Your task to perform on an android device: manage bookmarks in the chrome app Image 0: 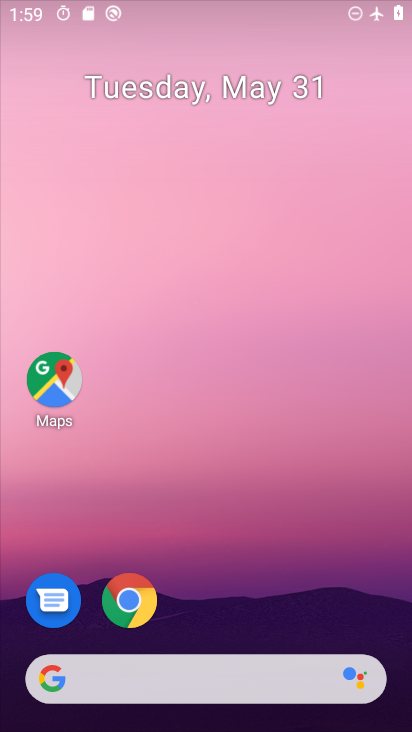
Step 0: drag from (213, 706) to (203, 106)
Your task to perform on an android device: manage bookmarks in the chrome app Image 1: 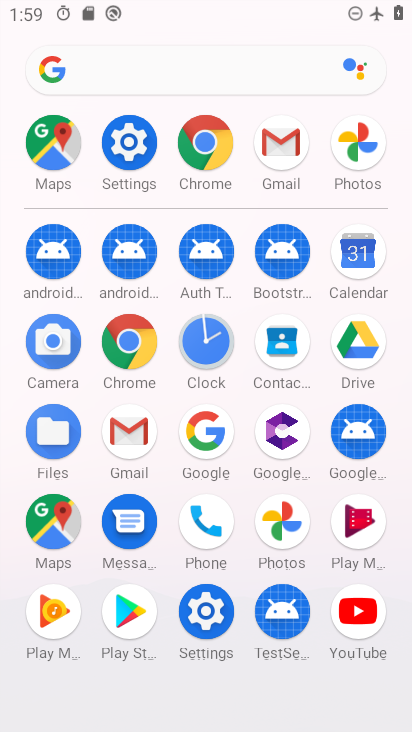
Step 1: click (204, 141)
Your task to perform on an android device: manage bookmarks in the chrome app Image 2: 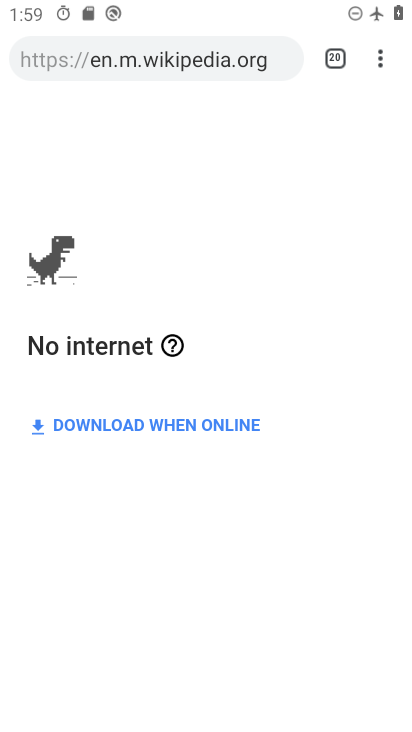
Step 2: click (381, 61)
Your task to perform on an android device: manage bookmarks in the chrome app Image 3: 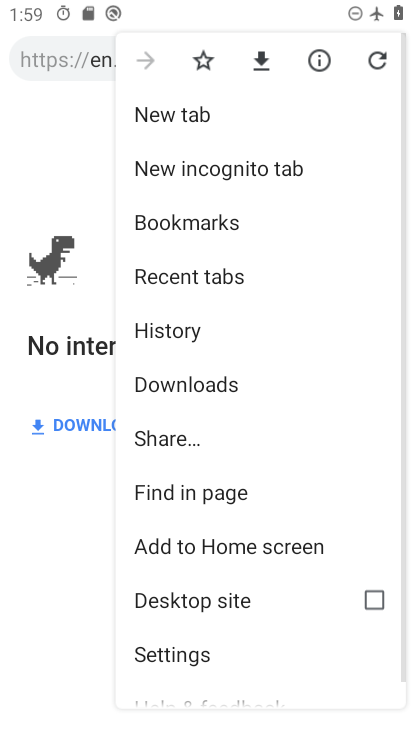
Step 3: click (180, 225)
Your task to perform on an android device: manage bookmarks in the chrome app Image 4: 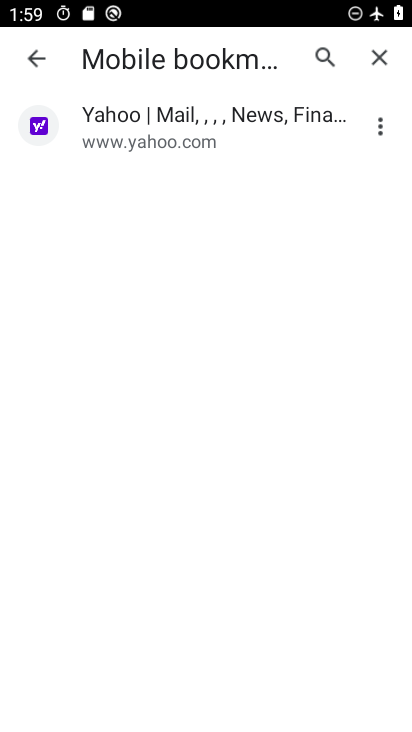
Step 4: click (382, 128)
Your task to perform on an android device: manage bookmarks in the chrome app Image 5: 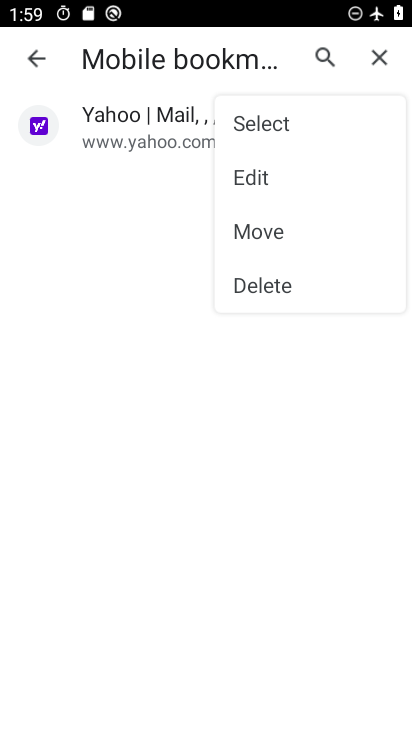
Step 5: click (261, 174)
Your task to perform on an android device: manage bookmarks in the chrome app Image 6: 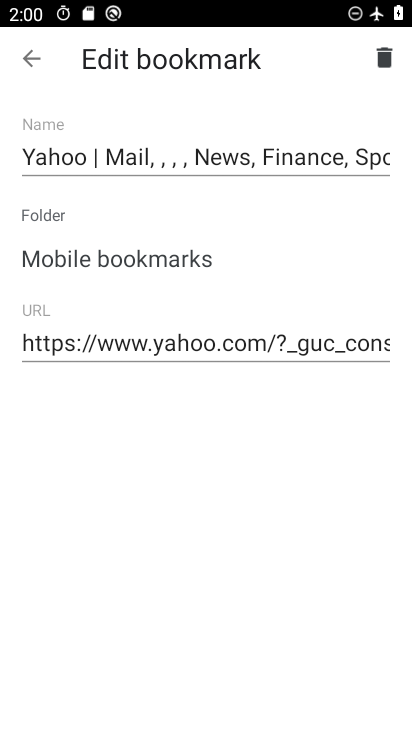
Step 6: click (243, 153)
Your task to perform on an android device: manage bookmarks in the chrome app Image 7: 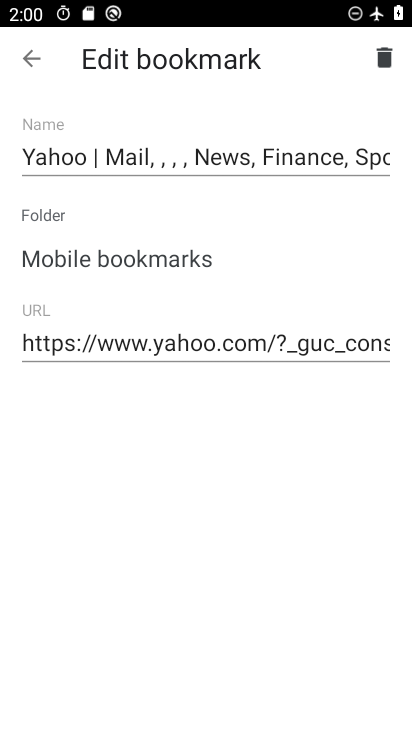
Step 7: click (243, 153)
Your task to perform on an android device: manage bookmarks in the chrome app Image 8: 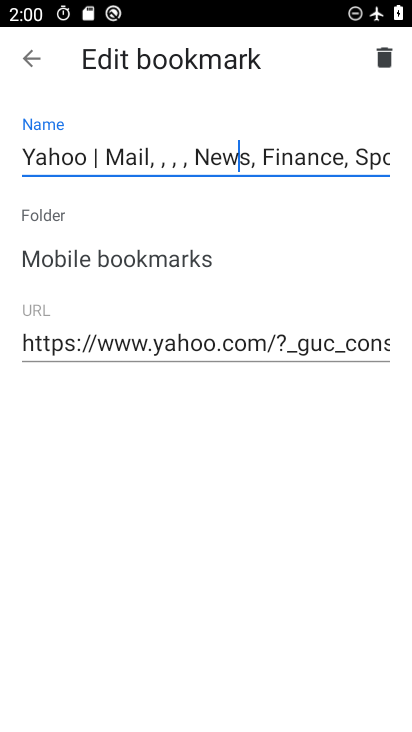
Step 8: click (243, 153)
Your task to perform on an android device: manage bookmarks in the chrome app Image 9: 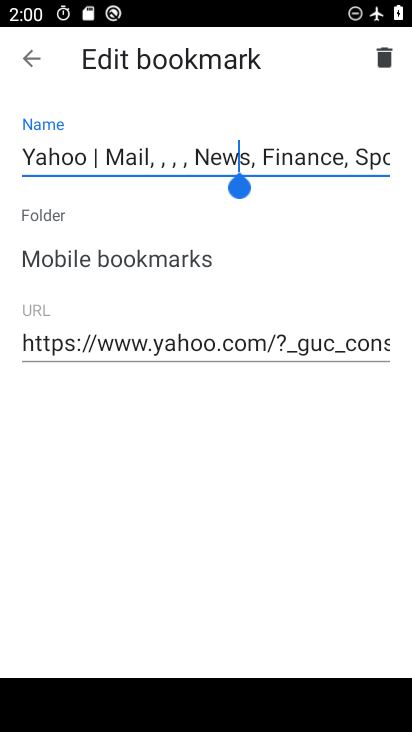
Step 9: click (243, 153)
Your task to perform on an android device: manage bookmarks in the chrome app Image 10: 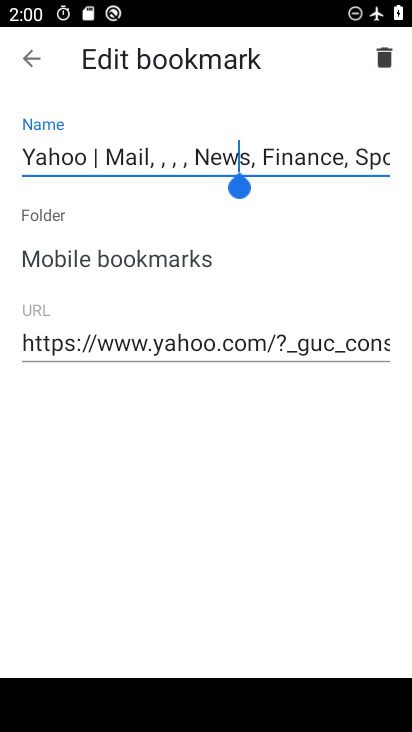
Step 10: click (243, 153)
Your task to perform on an android device: manage bookmarks in the chrome app Image 11: 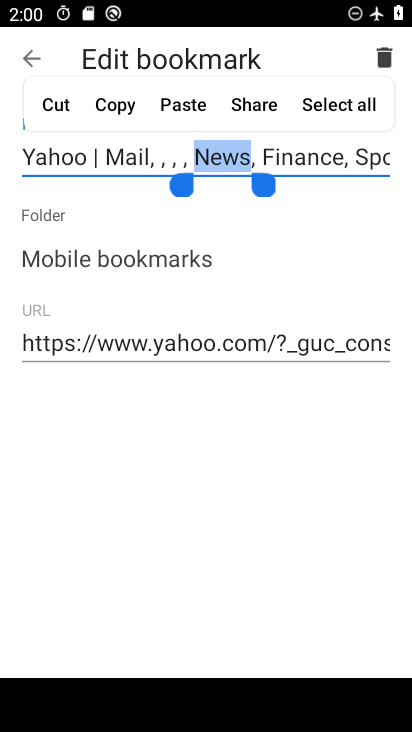
Step 11: click (52, 99)
Your task to perform on an android device: manage bookmarks in the chrome app Image 12: 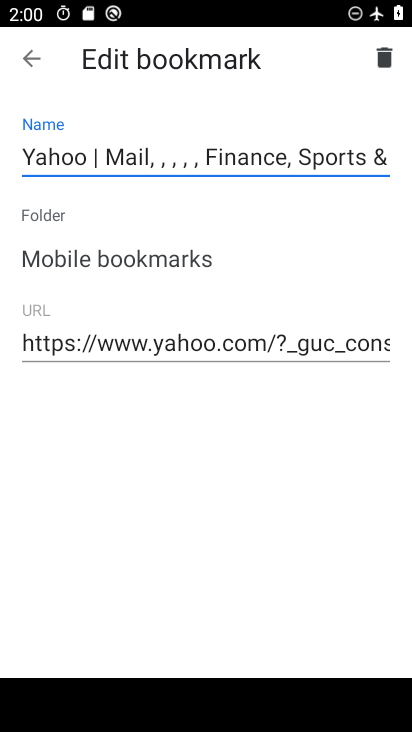
Step 12: click (27, 61)
Your task to perform on an android device: manage bookmarks in the chrome app Image 13: 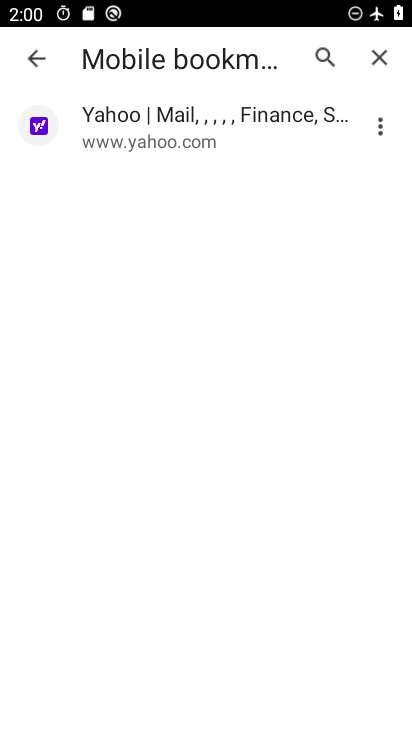
Step 13: task complete